Your task to perform on an android device: turn off improve location accuracy Image 0: 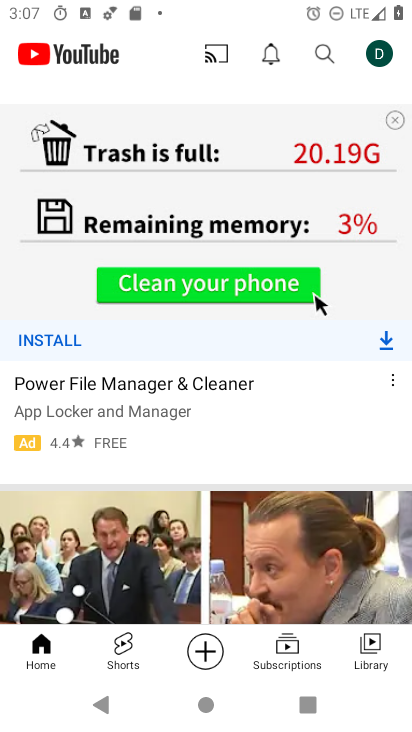
Step 0: press home button
Your task to perform on an android device: turn off improve location accuracy Image 1: 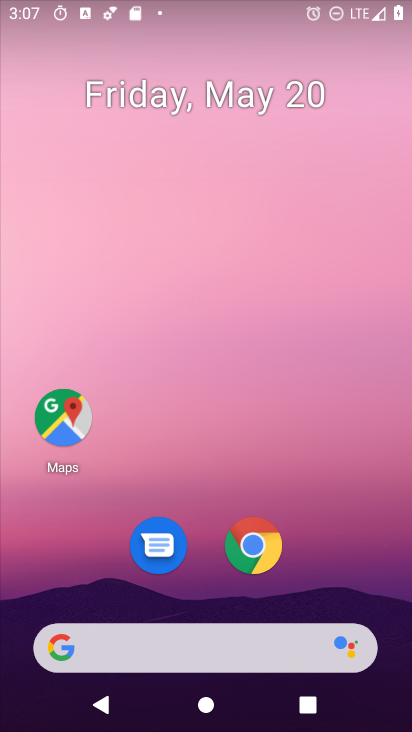
Step 1: drag from (120, 417) to (264, 11)
Your task to perform on an android device: turn off improve location accuracy Image 2: 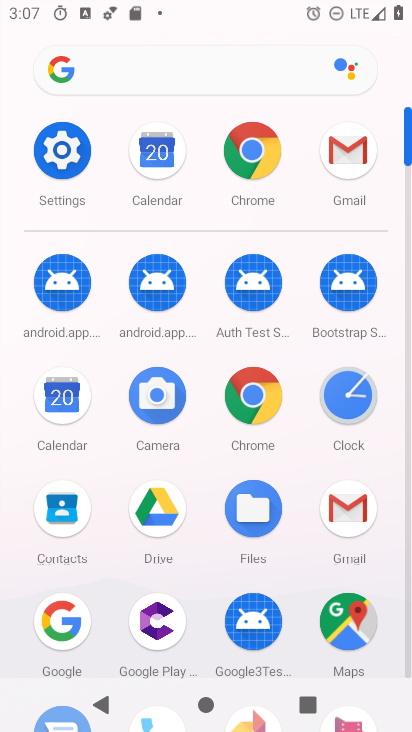
Step 2: click (73, 139)
Your task to perform on an android device: turn off improve location accuracy Image 3: 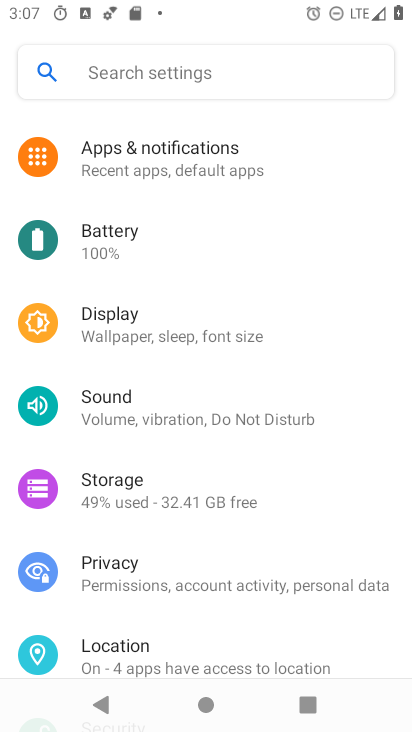
Step 3: click (232, 647)
Your task to perform on an android device: turn off improve location accuracy Image 4: 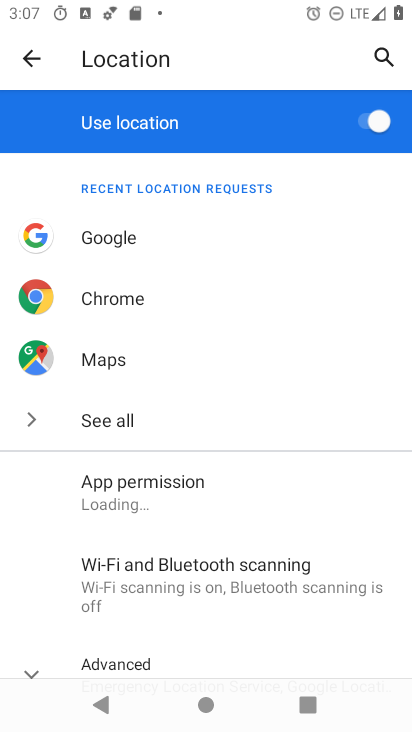
Step 4: drag from (275, 603) to (337, 8)
Your task to perform on an android device: turn off improve location accuracy Image 5: 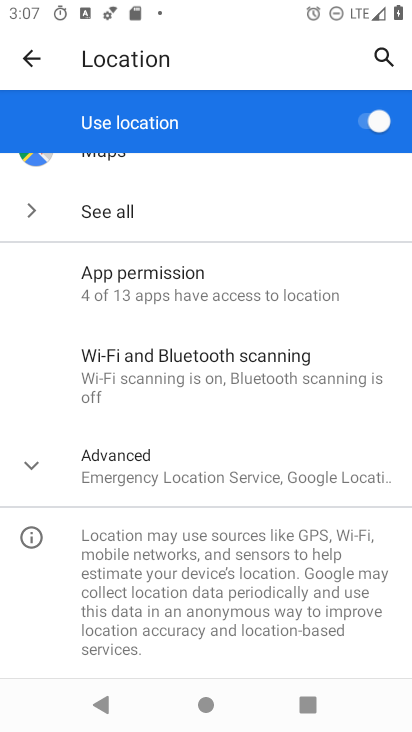
Step 5: drag from (238, 277) to (257, 639)
Your task to perform on an android device: turn off improve location accuracy Image 6: 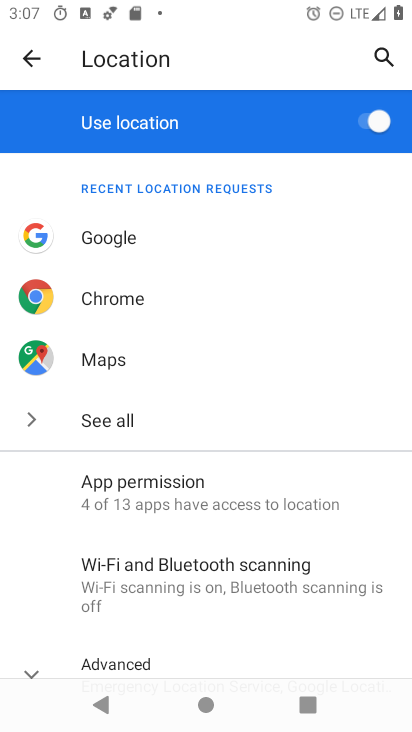
Step 6: drag from (221, 647) to (256, 230)
Your task to perform on an android device: turn off improve location accuracy Image 7: 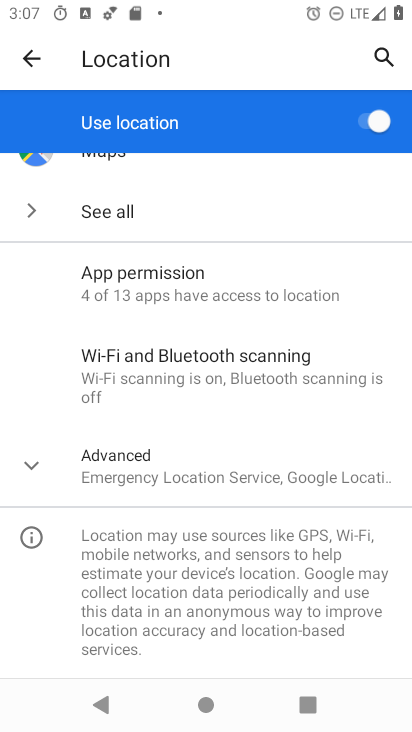
Step 7: click (258, 478)
Your task to perform on an android device: turn off improve location accuracy Image 8: 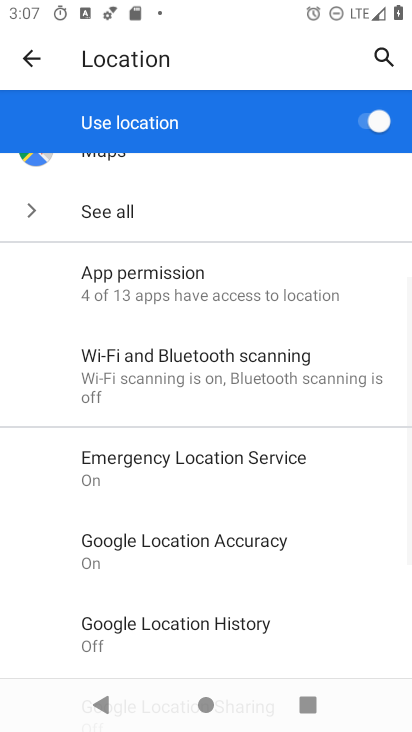
Step 8: click (274, 553)
Your task to perform on an android device: turn off improve location accuracy Image 9: 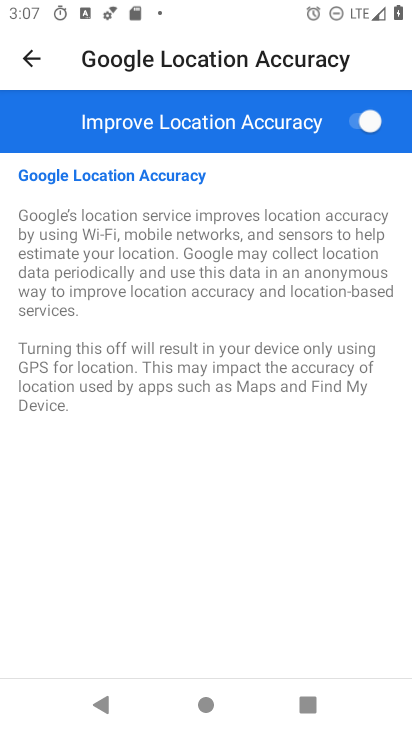
Step 9: click (365, 127)
Your task to perform on an android device: turn off improve location accuracy Image 10: 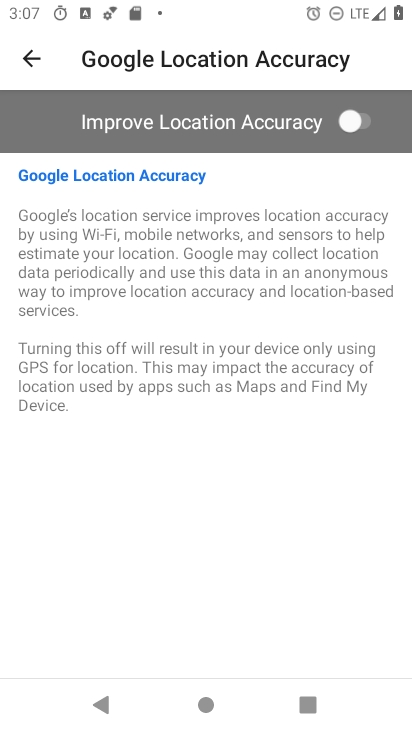
Step 10: task complete